Your task to perform on an android device: Go to privacy settings Image 0: 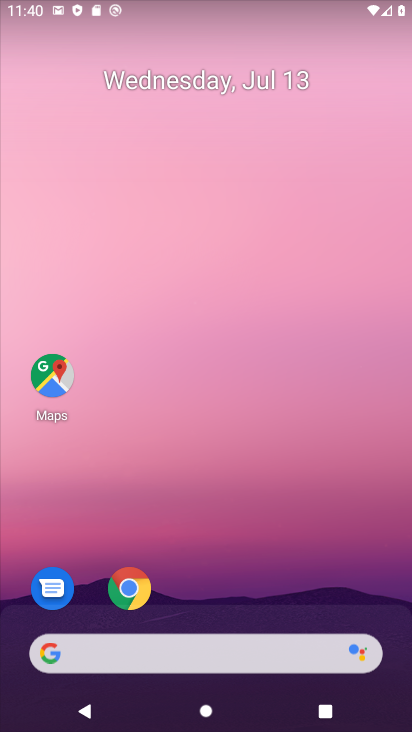
Step 0: drag from (286, 597) to (220, 81)
Your task to perform on an android device: Go to privacy settings Image 1: 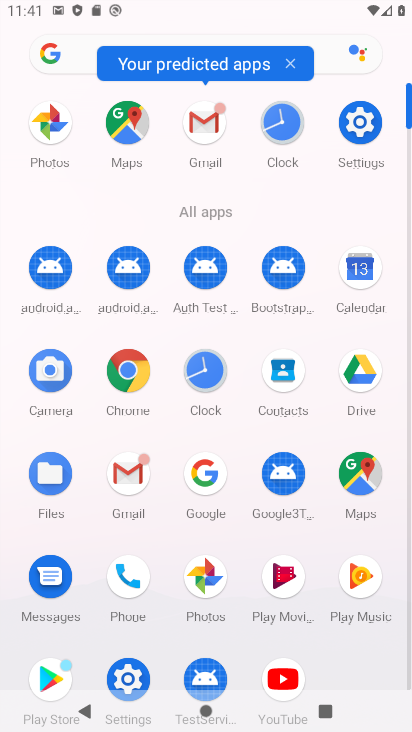
Step 1: click (355, 126)
Your task to perform on an android device: Go to privacy settings Image 2: 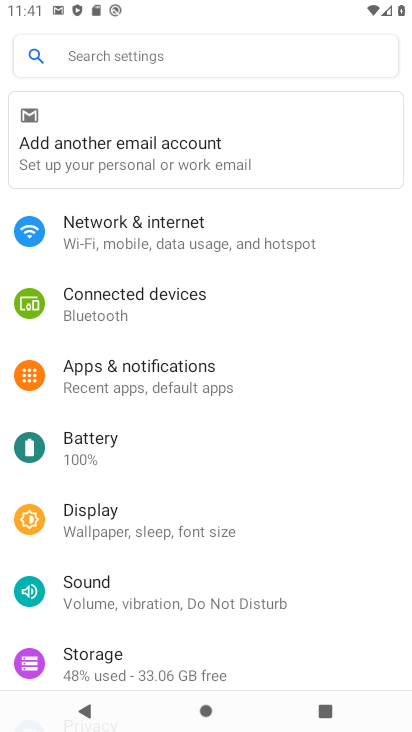
Step 2: drag from (207, 635) to (176, 270)
Your task to perform on an android device: Go to privacy settings Image 3: 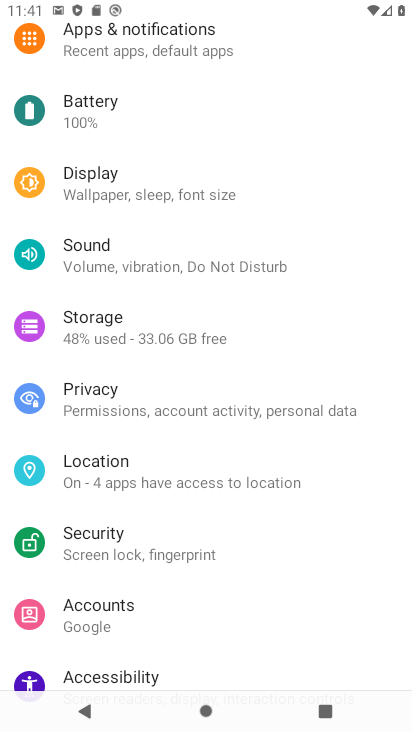
Step 3: click (192, 419)
Your task to perform on an android device: Go to privacy settings Image 4: 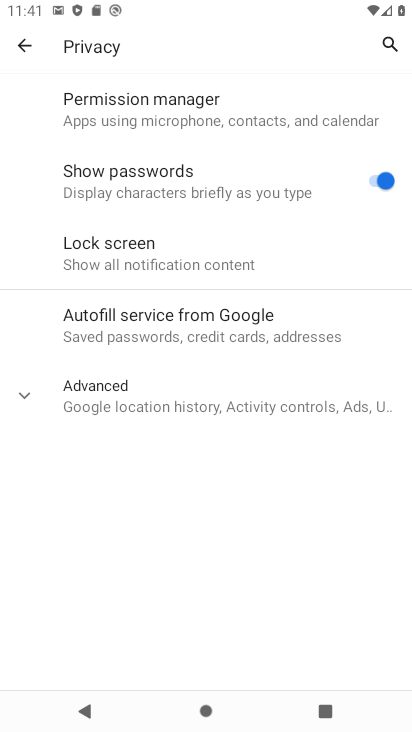
Step 4: task complete